Your task to perform on an android device: What's the weather today? Image 0: 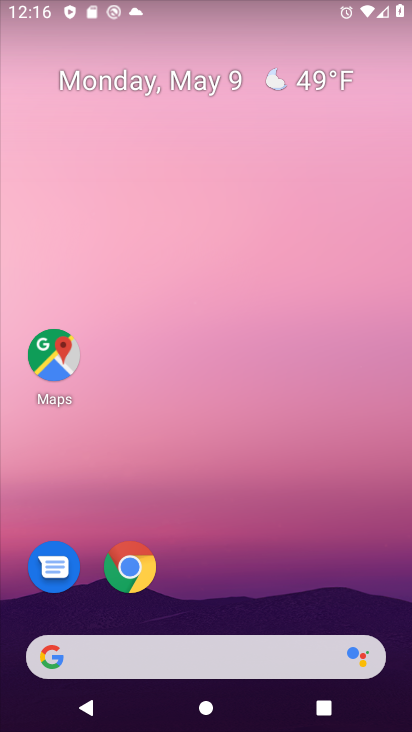
Step 0: click (273, 75)
Your task to perform on an android device: What's the weather today? Image 1: 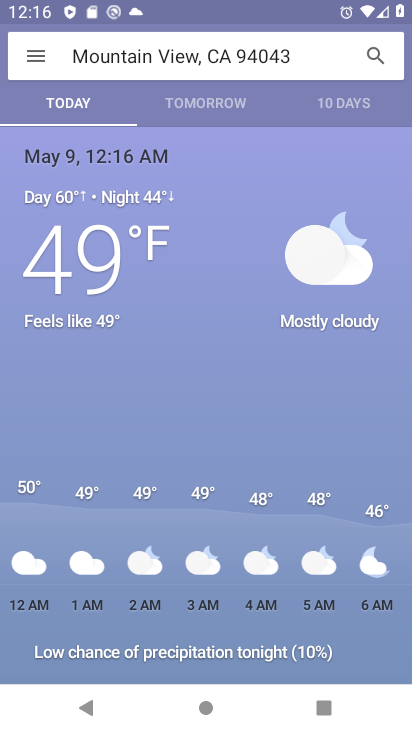
Step 1: task complete